Your task to perform on an android device: Open maps Image 0: 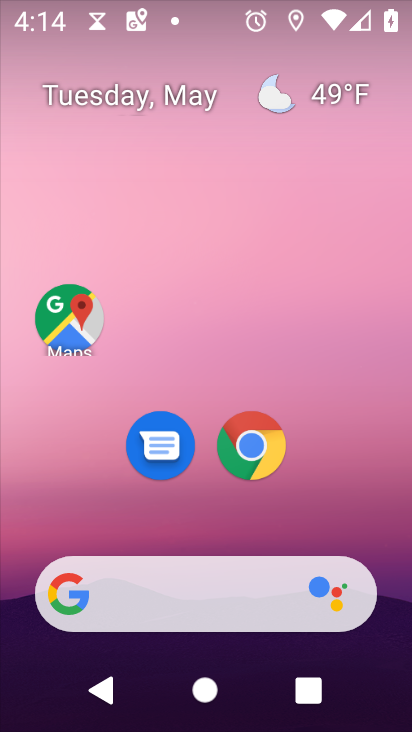
Step 0: drag from (202, 531) to (251, 16)
Your task to perform on an android device: Open maps Image 1: 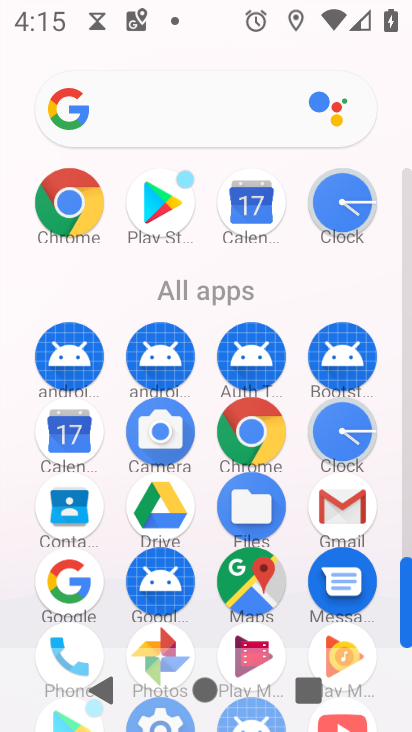
Step 1: click (239, 581)
Your task to perform on an android device: Open maps Image 2: 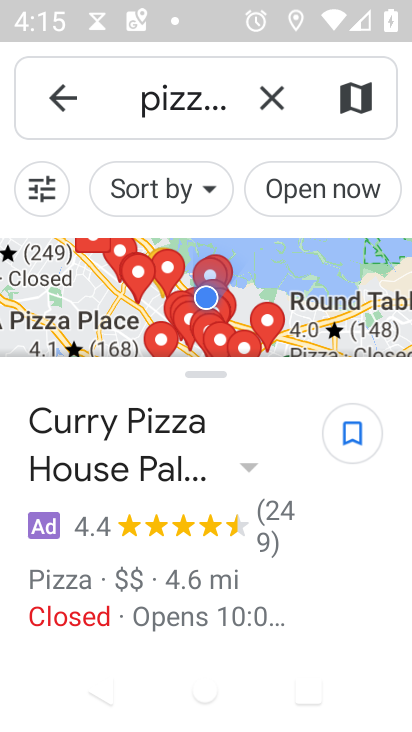
Step 2: task complete